Your task to perform on an android device: turn on notifications settings in the gmail app Image 0: 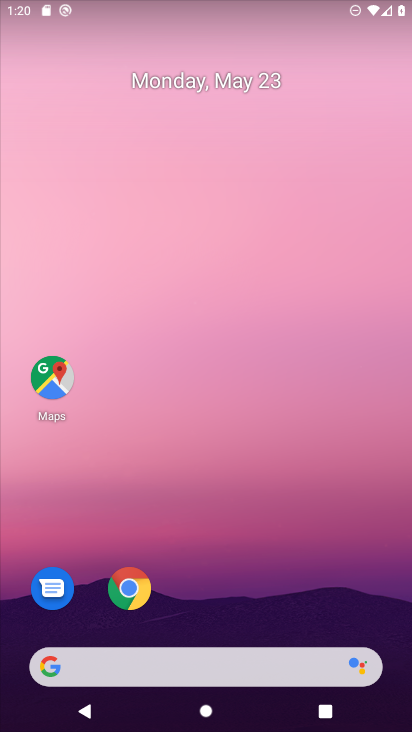
Step 0: drag from (281, 643) to (284, 177)
Your task to perform on an android device: turn on notifications settings in the gmail app Image 1: 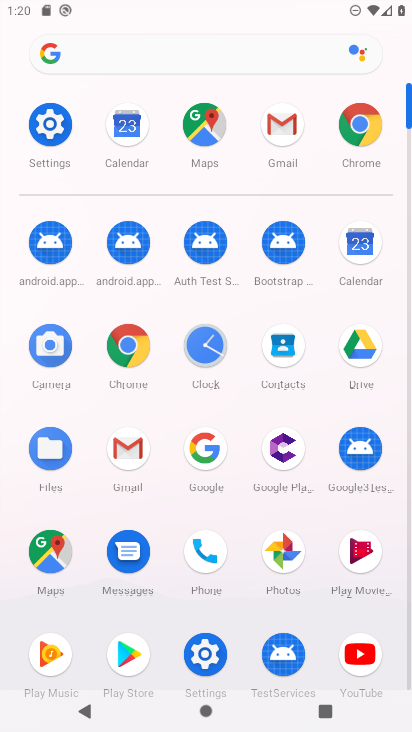
Step 1: click (276, 139)
Your task to perform on an android device: turn on notifications settings in the gmail app Image 2: 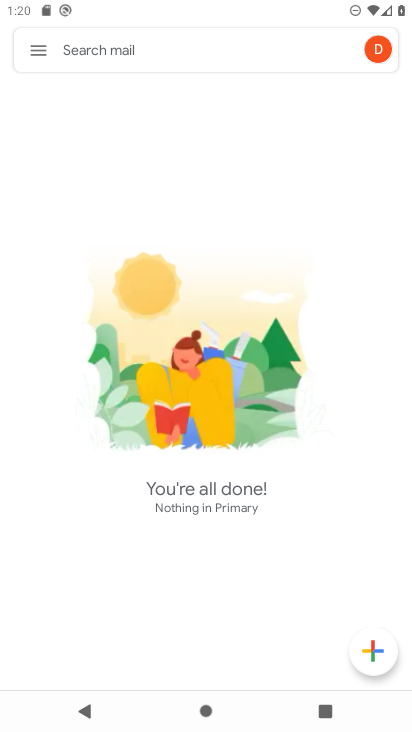
Step 2: click (35, 54)
Your task to perform on an android device: turn on notifications settings in the gmail app Image 3: 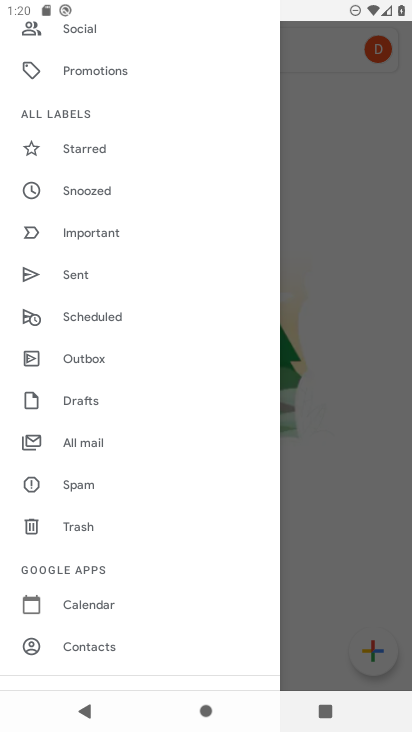
Step 3: click (163, 426)
Your task to perform on an android device: turn on notifications settings in the gmail app Image 4: 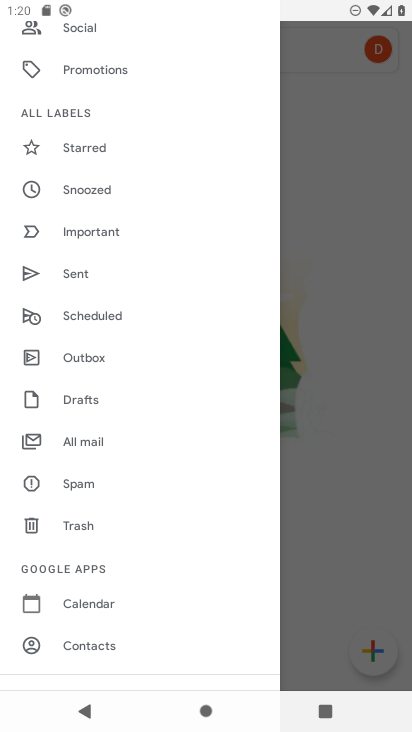
Step 4: drag from (103, 665) to (83, 286)
Your task to perform on an android device: turn on notifications settings in the gmail app Image 5: 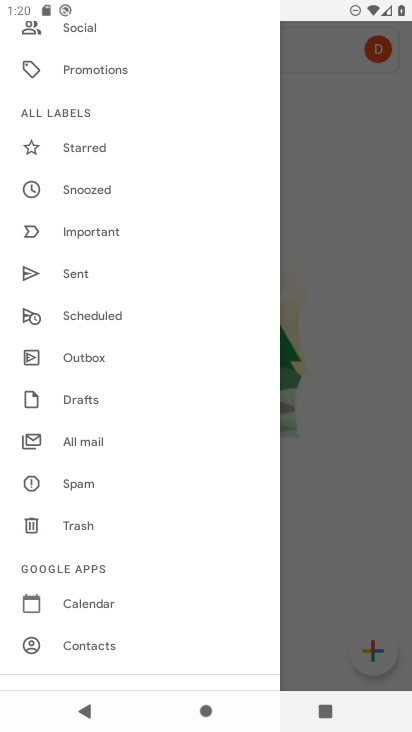
Step 5: drag from (109, 653) to (119, 174)
Your task to perform on an android device: turn on notifications settings in the gmail app Image 6: 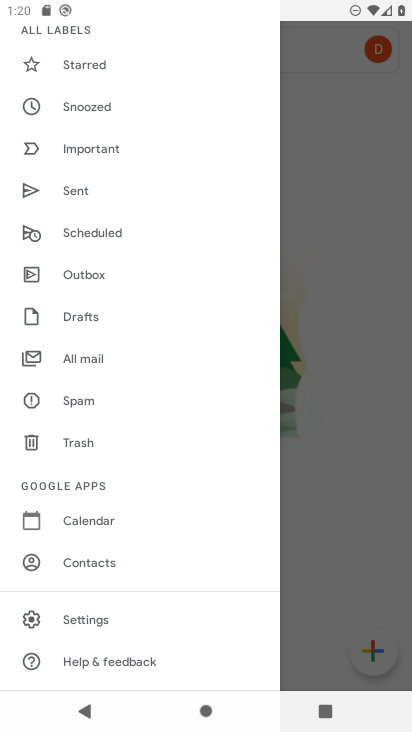
Step 6: click (80, 617)
Your task to perform on an android device: turn on notifications settings in the gmail app Image 7: 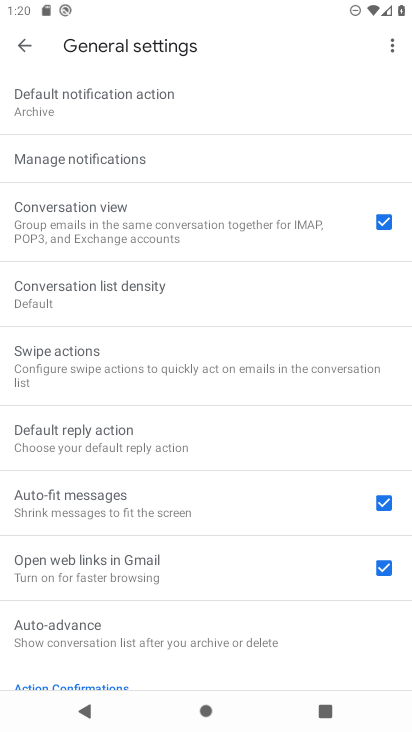
Step 7: click (122, 164)
Your task to perform on an android device: turn on notifications settings in the gmail app Image 8: 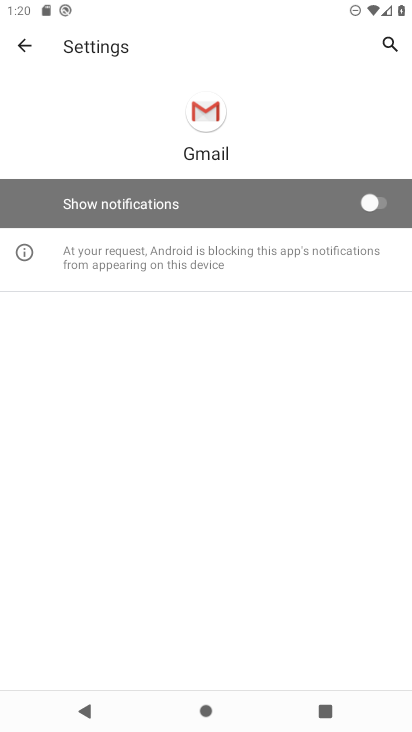
Step 8: click (379, 206)
Your task to perform on an android device: turn on notifications settings in the gmail app Image 9: 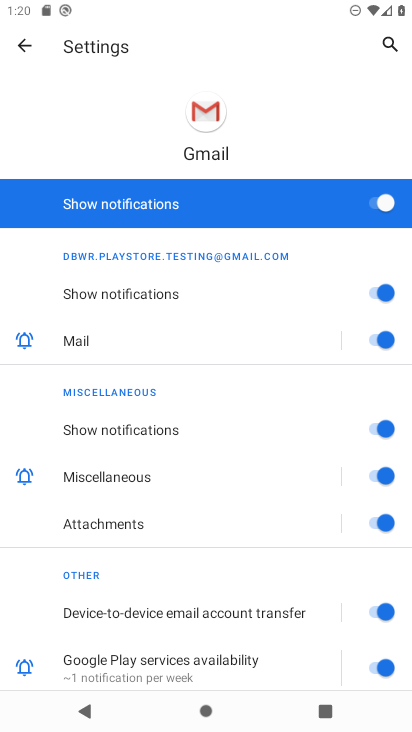
Step 9: task complete